Your task to perform on an android device: add a label to a message in the gmail app Image 0: 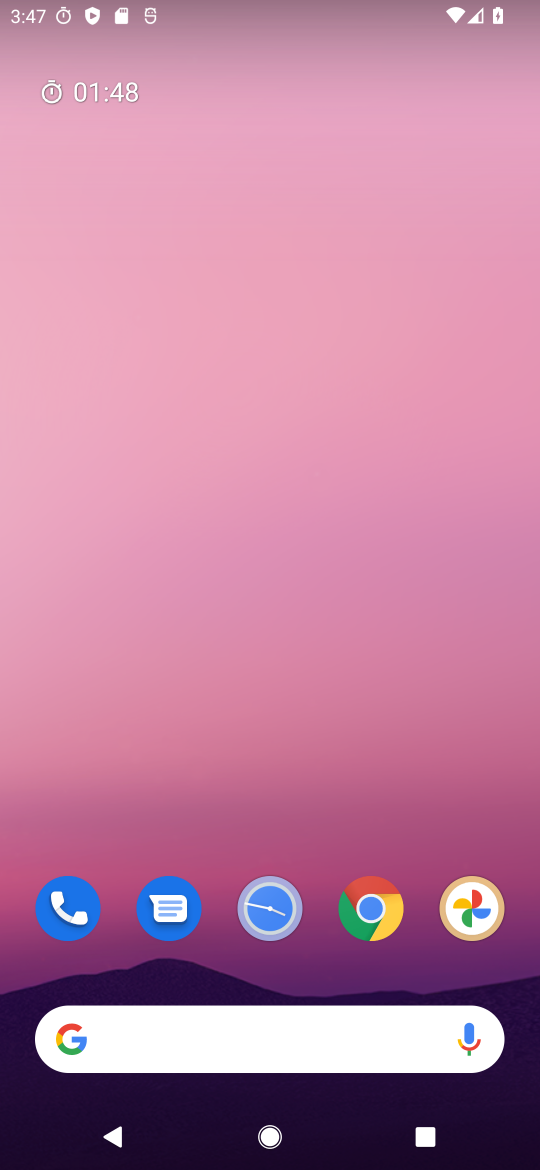
Step 0: drag from (326, 863) to (318, 54)
Your task to perform on an android device: add a label to a message in the gmail app Image 1: 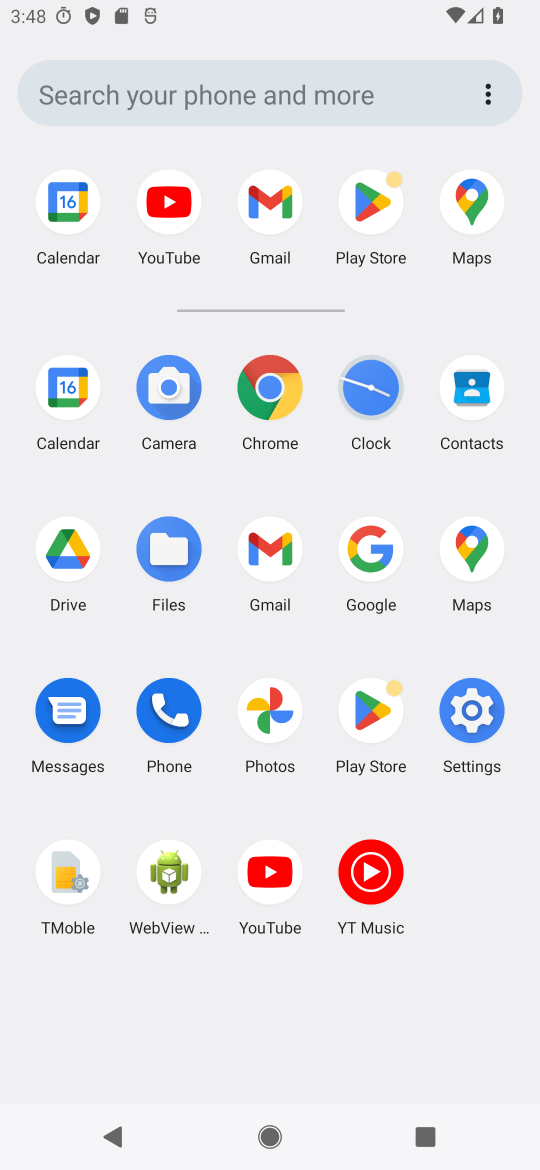
Step 1: click (270, 543)
Your task to perform on an android device: add a label to a message in the gmail app Image 2: 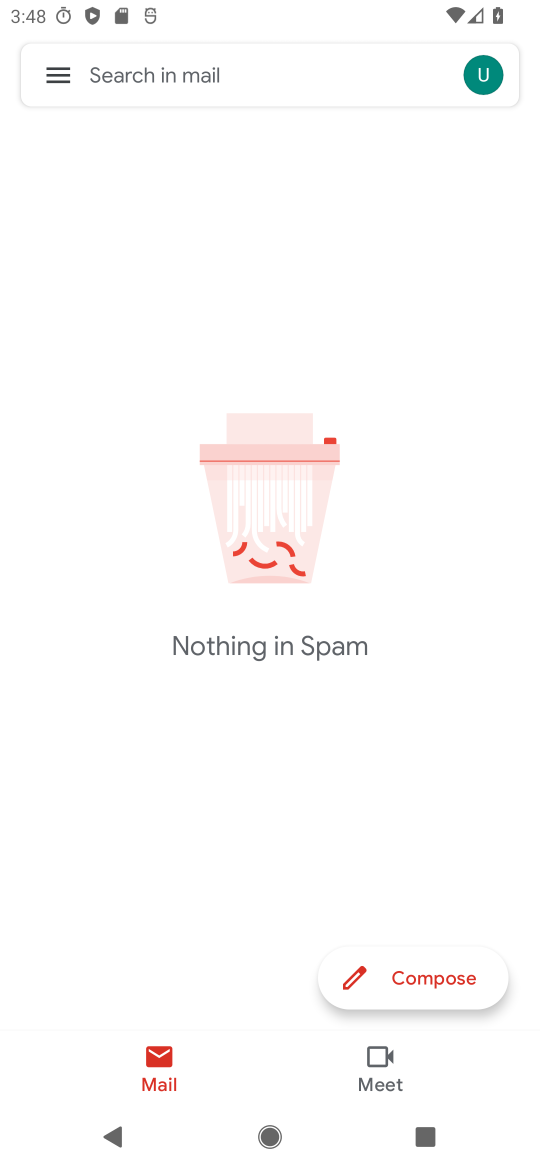
Step 2: click (48, 70)
Your task to perform on an android device: add a label to a message in the gmail app Image 3: 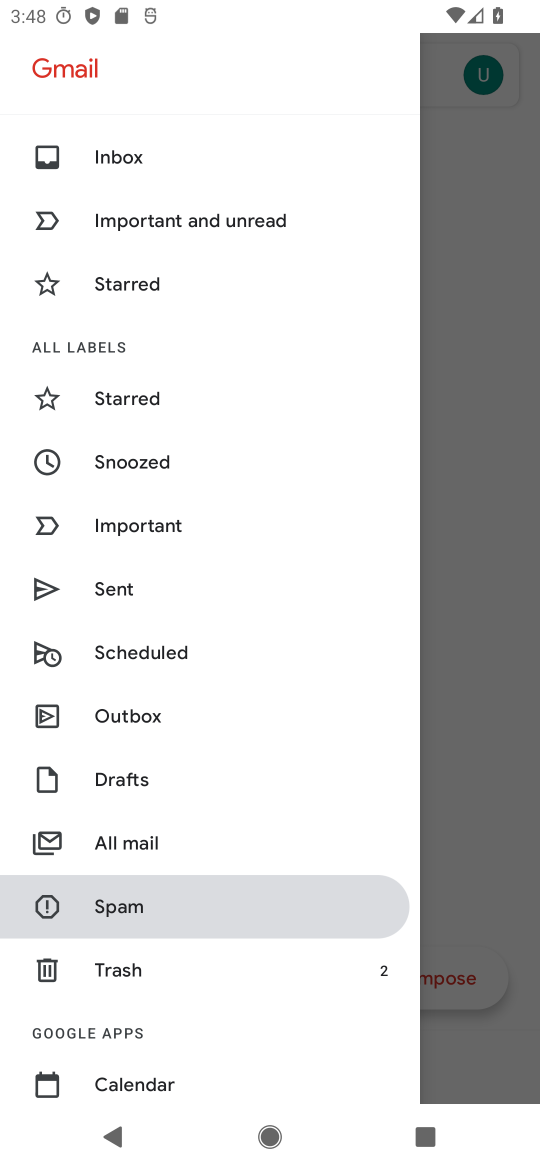
Step 3: click (149, 156)
Your task to perform on an android device: add a label to a message in the gmail app Image 4: 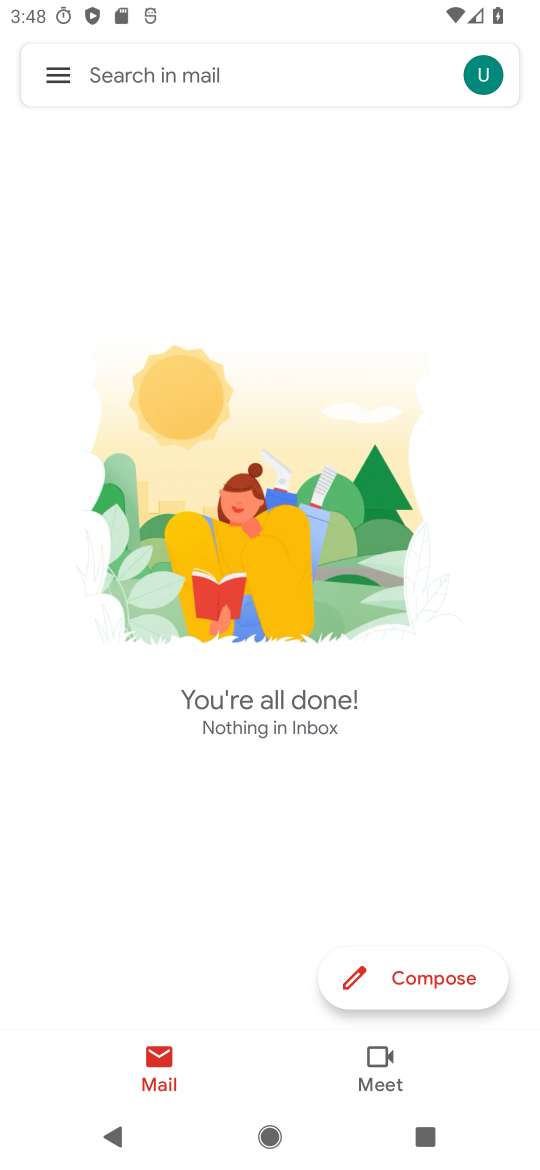
Step 4: task complete